Your task to perform on an android device: Search for seafood restaurants on Google Maps Image 0: 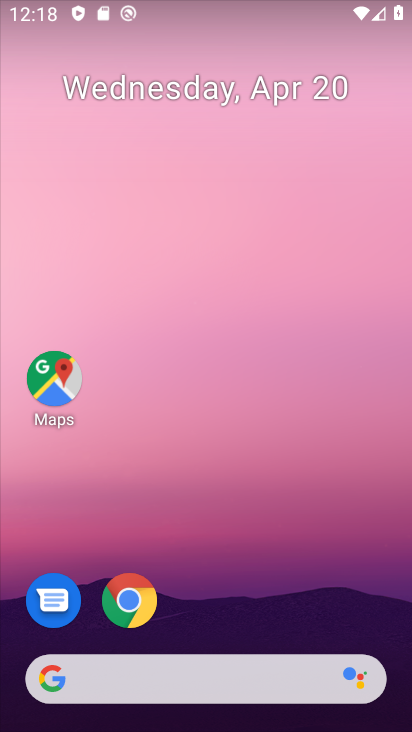
Step 0: click (65, 373)
Your task to perform on an android device: Search for seafood restaurants on Google Maps Image 1: 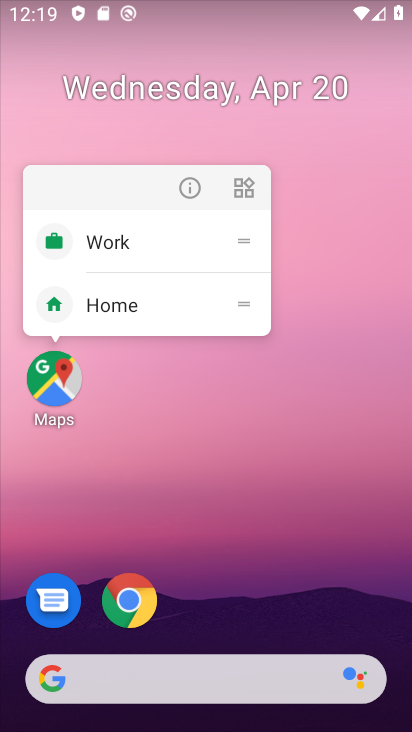
Step 1: click (153, 430)
Your task to perform on an android device: Search for seafood restaurants on Google Maps Image 2: 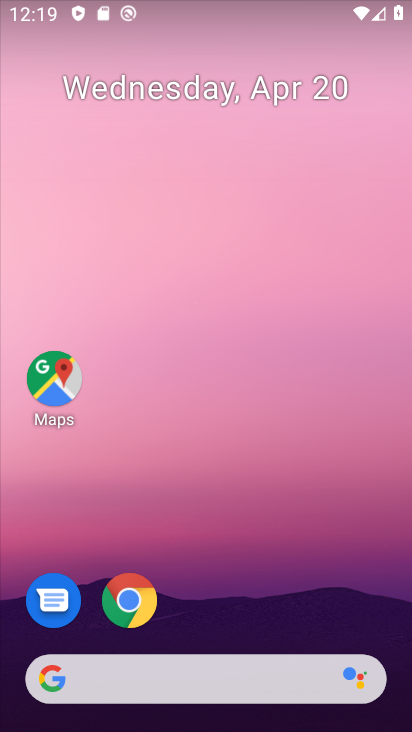
Step 2: click (50, 375)
Your task to perform on an android device: Search for seafood restaurants on Google Maps Image 3: 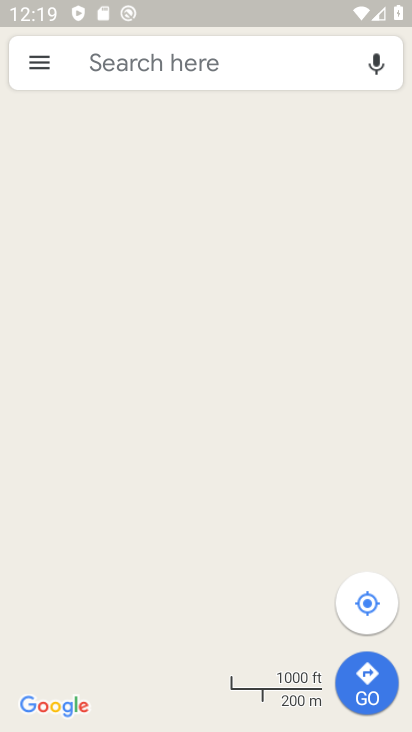
Step 3: click (152, 78)
Your task to perform on an android device: Search for seafood restaurants on Google Maps Image 4: 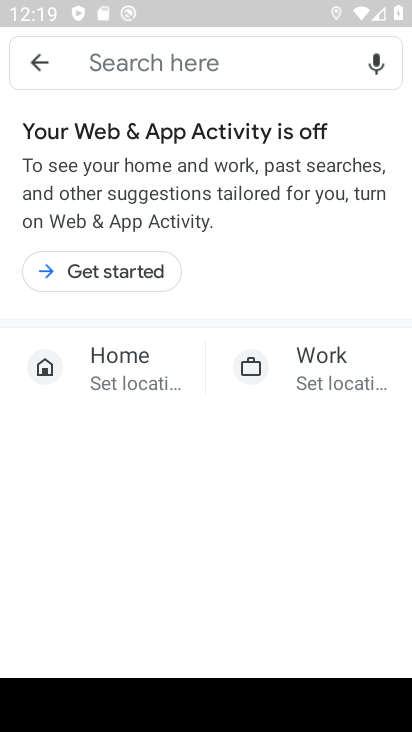
Step 4: type "seafood restaurants"
Your task to perform on an android device: Search for seafood restaurants on Google Maps Image 5: 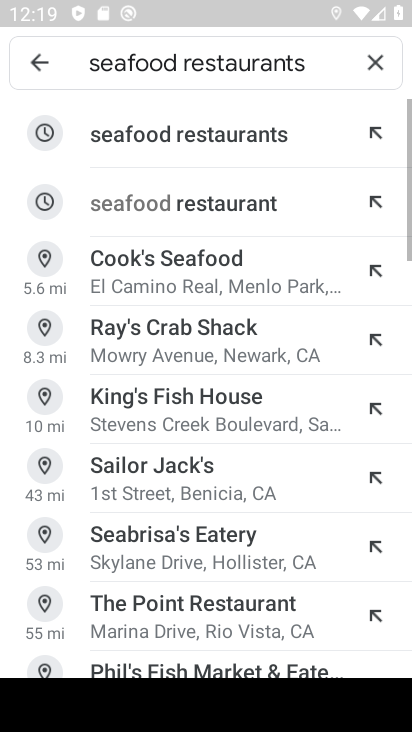
Step 5: task complete